Your task to perform on an android device: move an email to a new category in the gmail app Image 0: 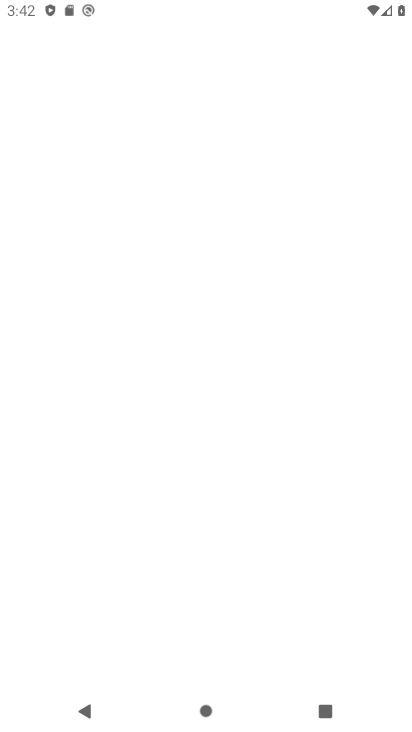
Step 0: drag from (201, 583) to (204, 429)
Your task to perform on an android device: move an email to a new category in the gmail app Image 1: 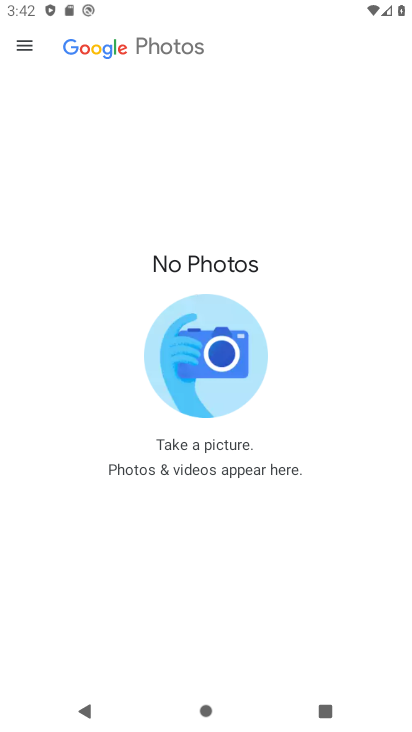
Step 1: press home button
Your task to perform on an android device: move an email to a new category in the gmail app Image 2: 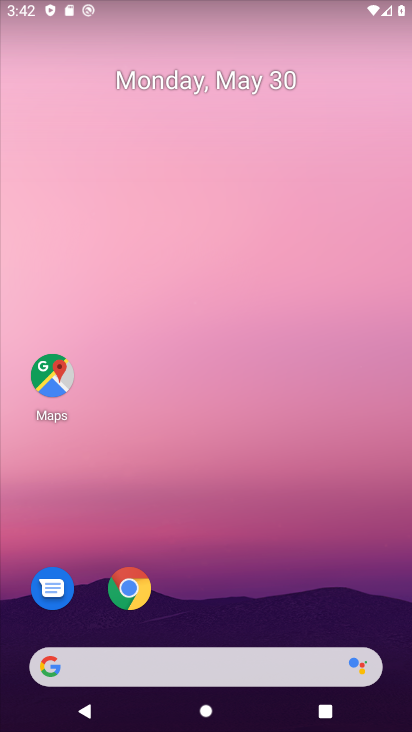
Step 2: drag from (202, 539) to (201, 354)
Your task to perform on an android device: move an email to a new category in the gmail app Image 3: 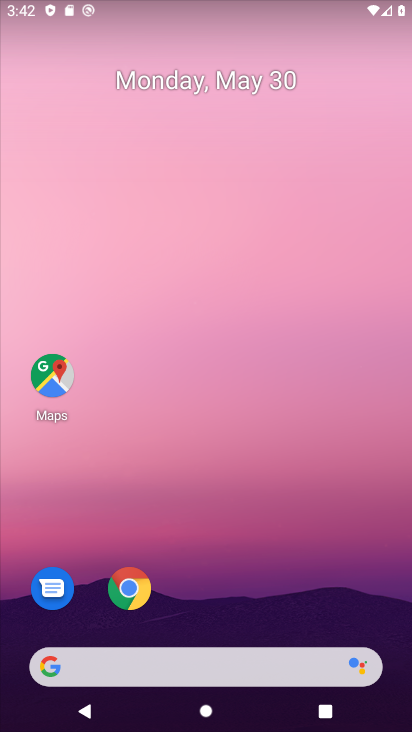
Step 3: drag from (249, 631) to (279, 160)
Your task to perform on an android device: move an email to a new category in the gmail app Image 4: 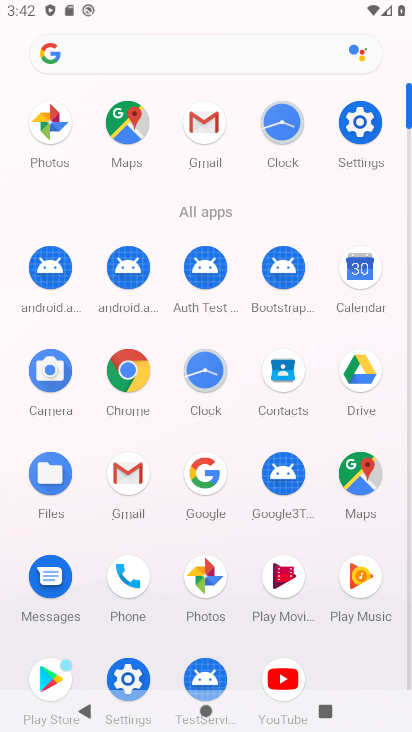
Step 4: click (199, 136)
Your task to perform on an android device: move an email to a new category in the gmail app Image 5: 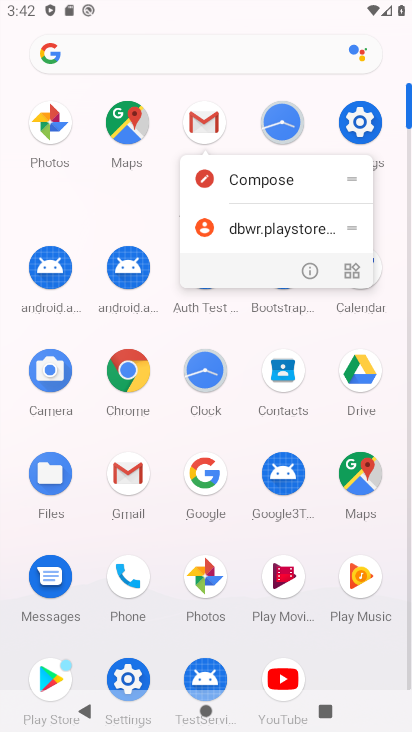
Step 5: click (202, 120)
Your task to perform on an android device: move an email to a new category in the gmail app Image 6: 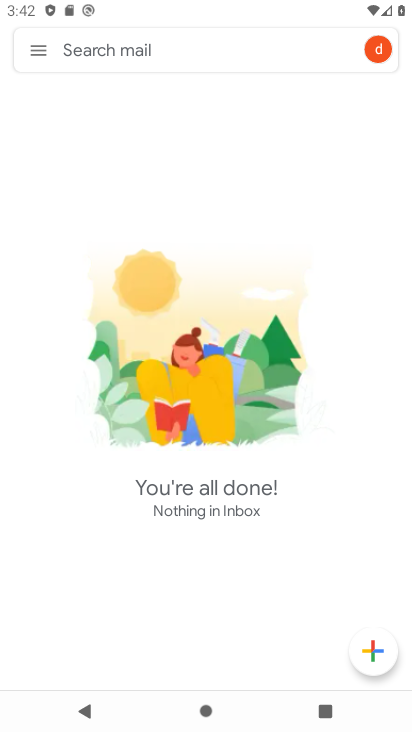
Step 6: click (31, 49)
Your task to perform on an android device: move an email to a new category in the gmail app Image 7: 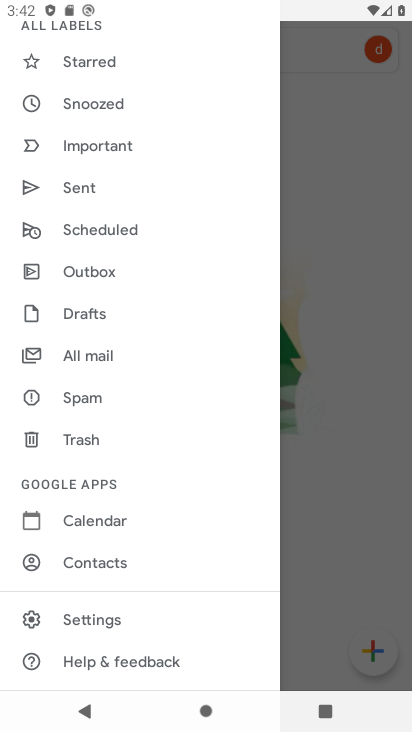
Step 7: drag from (150, 57) to (177, 550)
Your task to perform on an android device: move an email to a new category in the gmail app Image 8: 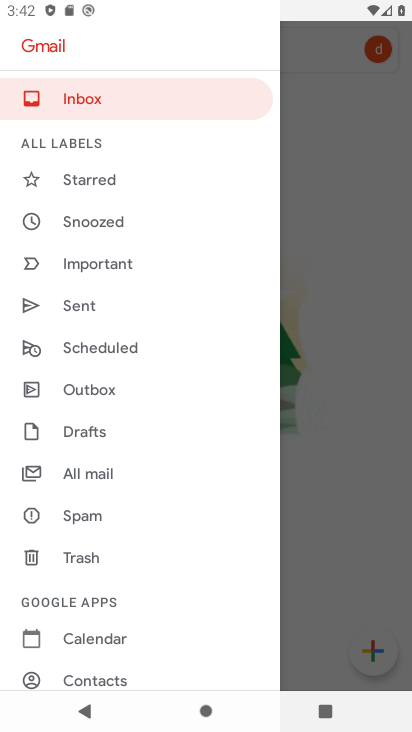
Step 8: click (398, 258)
Your task to perform on an android device: move an email to a new category in the gmail app Image 9: 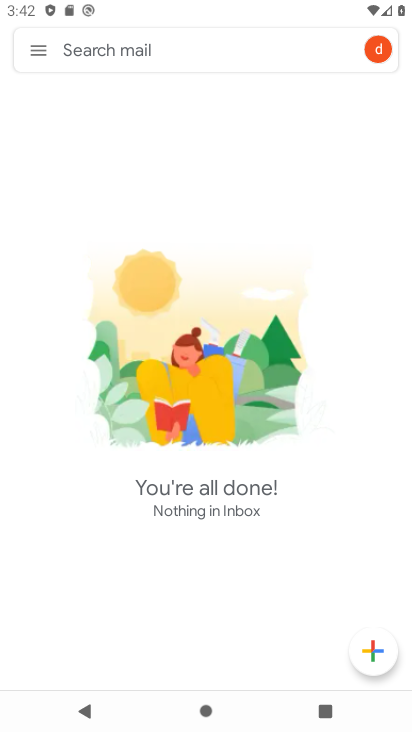
Step 9: task complete